Your task to perform on an android device: delete the emails in spam in the gmail app Image 0: 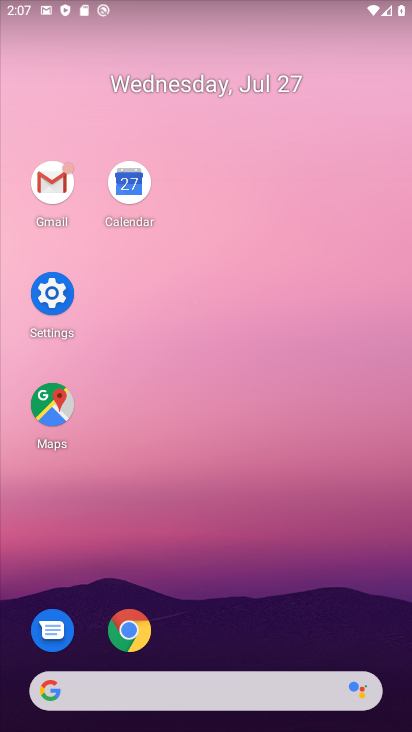
Step 0: click (61, 182)
Your task to perform on an android device: delete the emails in spam in the gmail app Image 1: 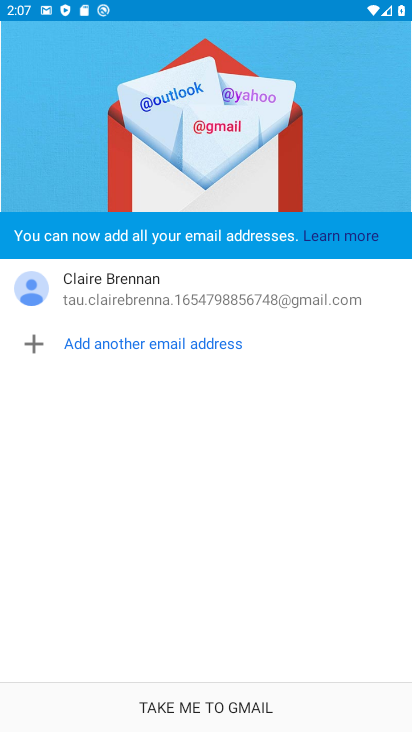
Step 1: click (362, 702)
Your task to perform on an android device: delete the emails in spam in the gmail app Image 2: 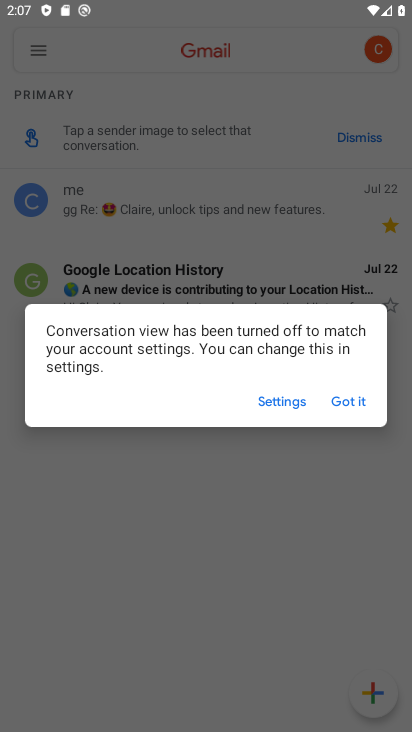
Step 2: click (342, 385)
Your task to perform on an android device: delete the emails in spam in the gmail app Image 3: 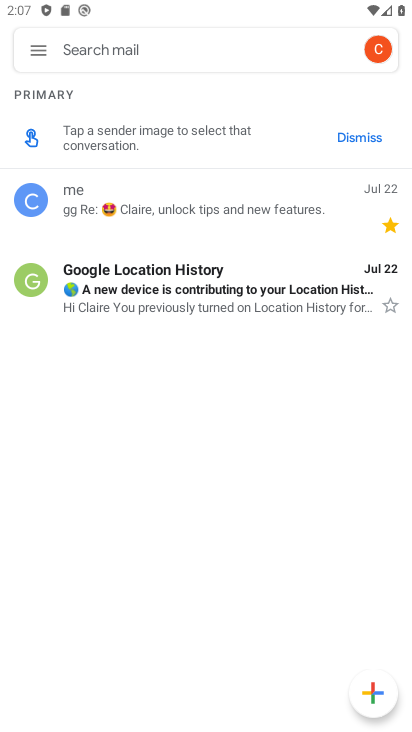
Step 3: click (171, 200)
Your task to perform on an android device: delete the emails in spam in the gmail app Image 4: 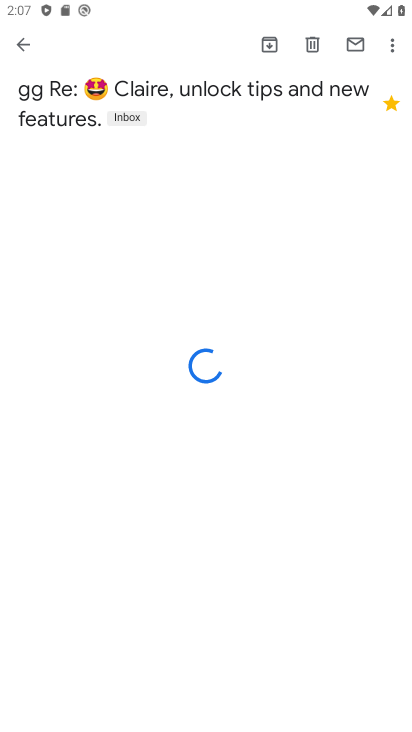
Step 4: click (318, 53)
Your task to perform on an android device: delete the emails in spam in the gmail app Image 5: 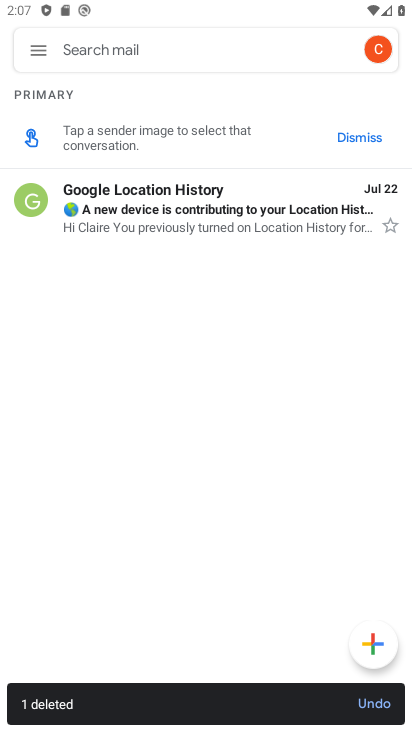
Step 5: task complete